Your task to perform on an android device: read, delete, or share a saved page in the chrome app Image 0: 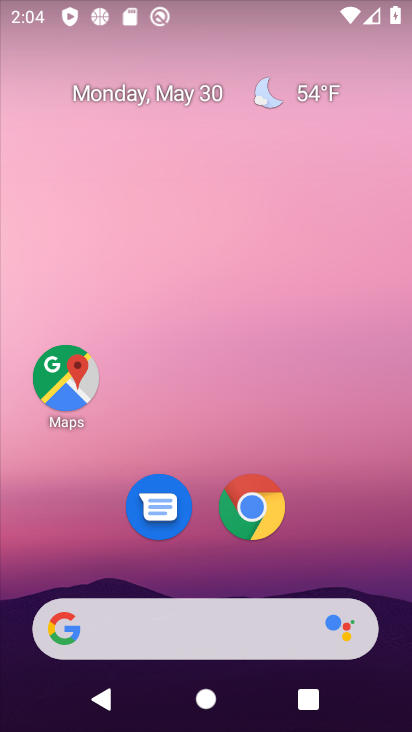
Step 0: drag from (399, 604) to (327, 70)
Your task to perform on an android device: read, delete, or share a saved page in the chrome app Image 1: 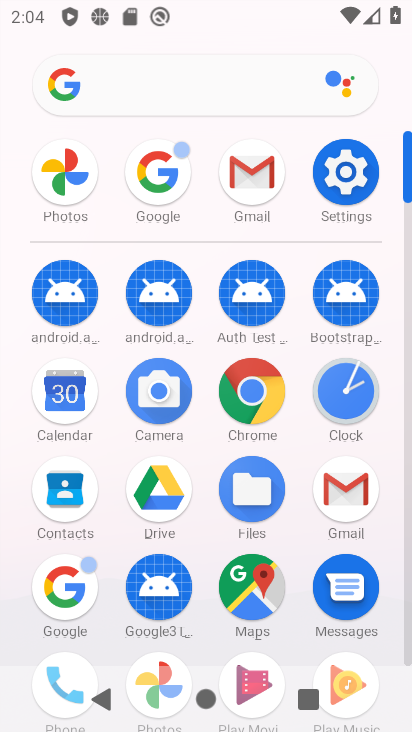
Step 1: click (230, 406)
Your task to perform on an android device: read, delete, or share a saved page in the chrome app Image 2: 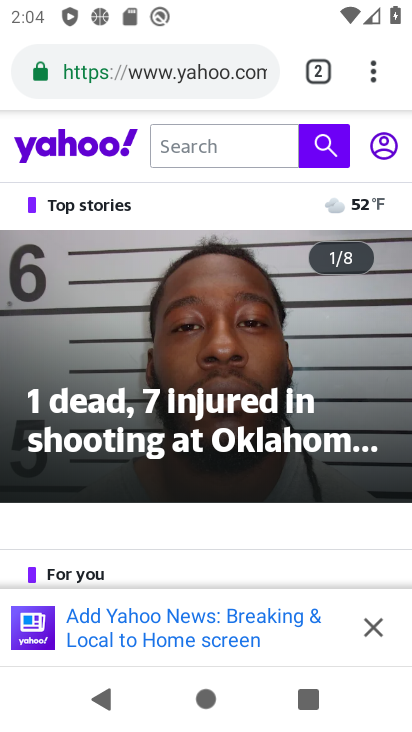
Step 2: press back button
Your task to perform on an android device: read, delete, or share a saved page in the chrome app Image 3: 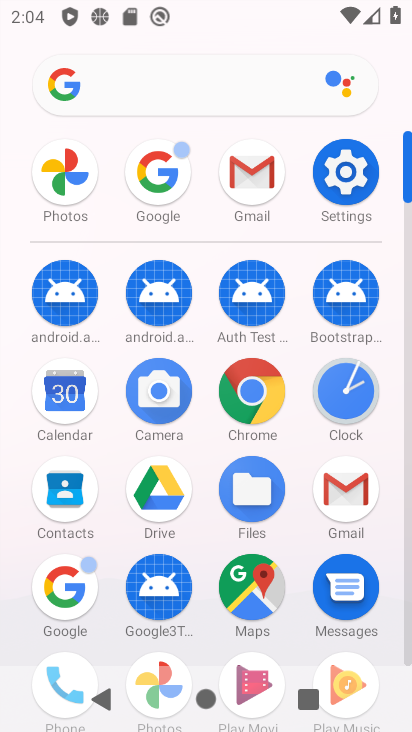
Step 3: click (251, 370)
Your task to perform on an android device: read, delete, or share a saved page in the chrome app Image 4: 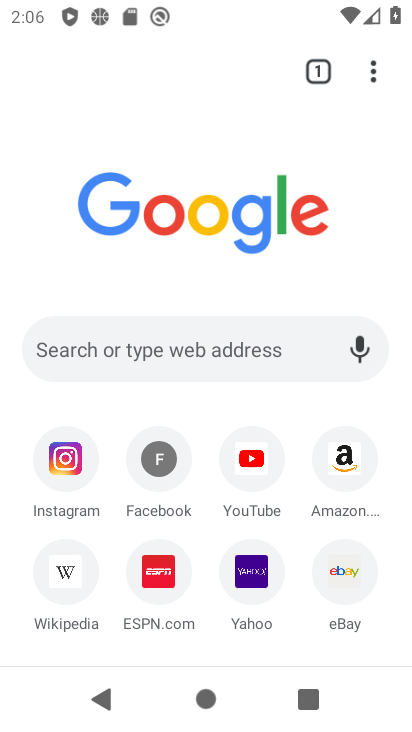
Step 4: task complete